Your task to perform on an android device: Empty the shopping cart on newegg.com. Search for "macbook pro 13 inch" on newegg.com, select the first entry, and add it to the cart. Image 0: 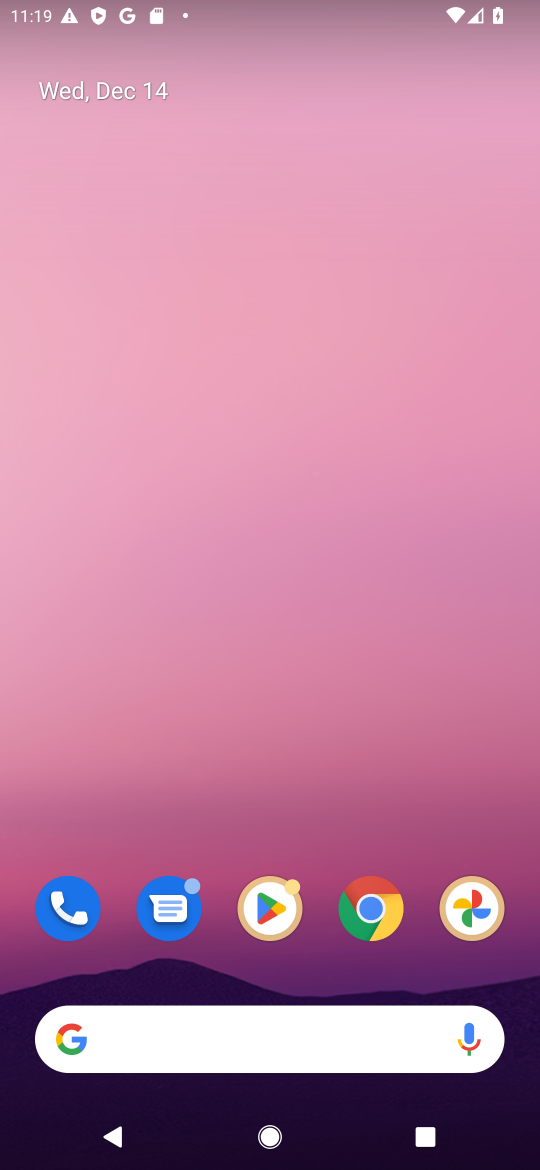
Step 0: click (374, 932)
Your task to perform on an android device: Empty the shopping cart on newegg.com. Search for "macbook pro 13 inch" on newegg.com, select the first entry, and add it to the cart. Image 1: 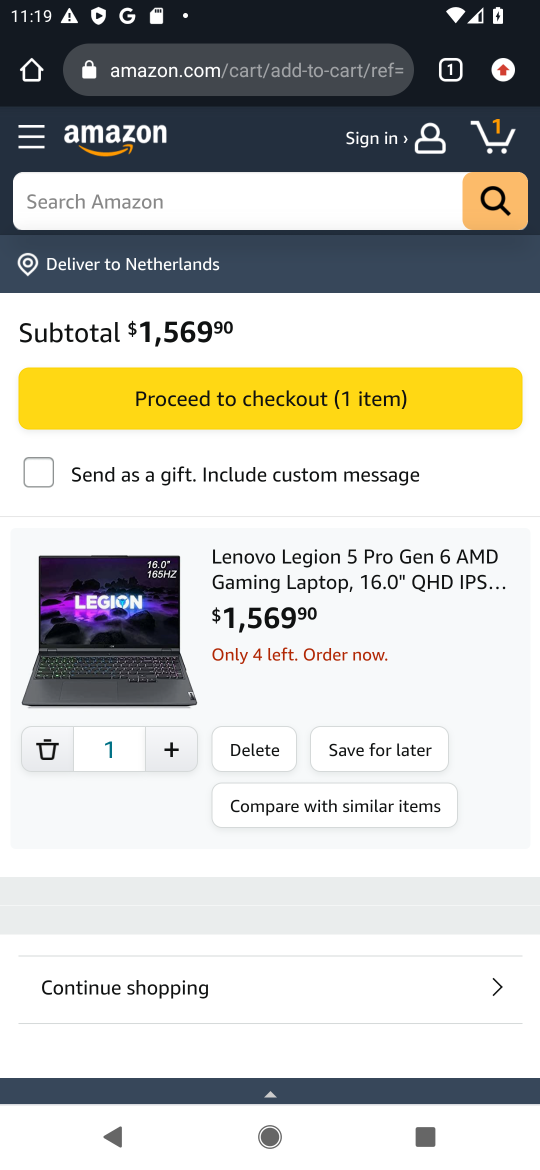
Step 1: click (202, 77)
Your task to perform on an android device: Empty the shopping cart on newegg.com. Search for "macbook pro 13 inch" on newegg.com, select the first entry, and add it to the cart. Image 2: 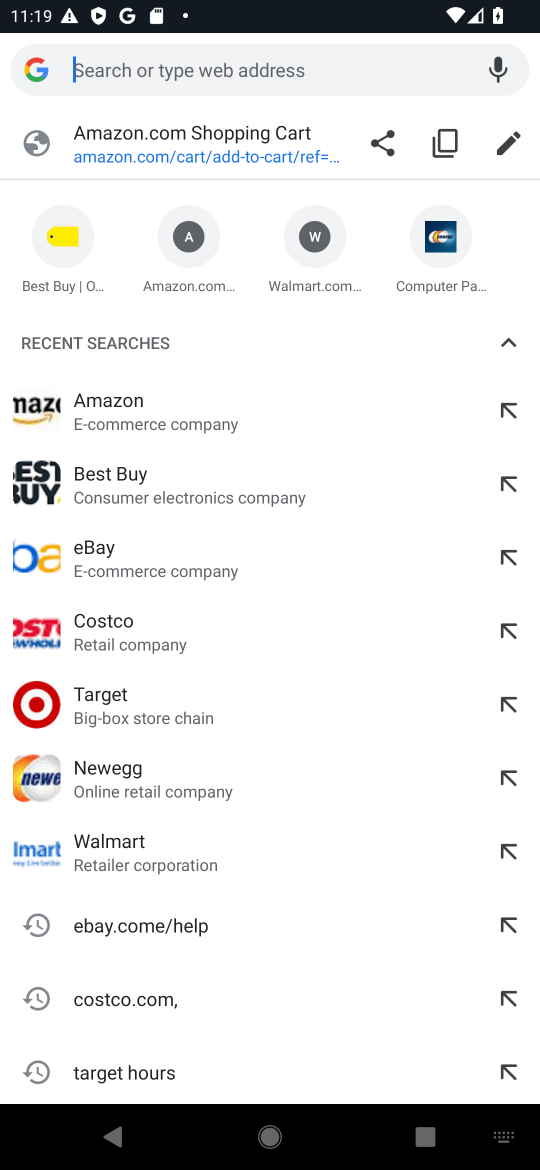
Step 2: click (154, 786)
Your task to perform on an android device: Empty the shopping cart on newegg.com. Search for "macbook pro 13 inch" on newegg.com, select the first entry, and add it to the cart. Image 3: 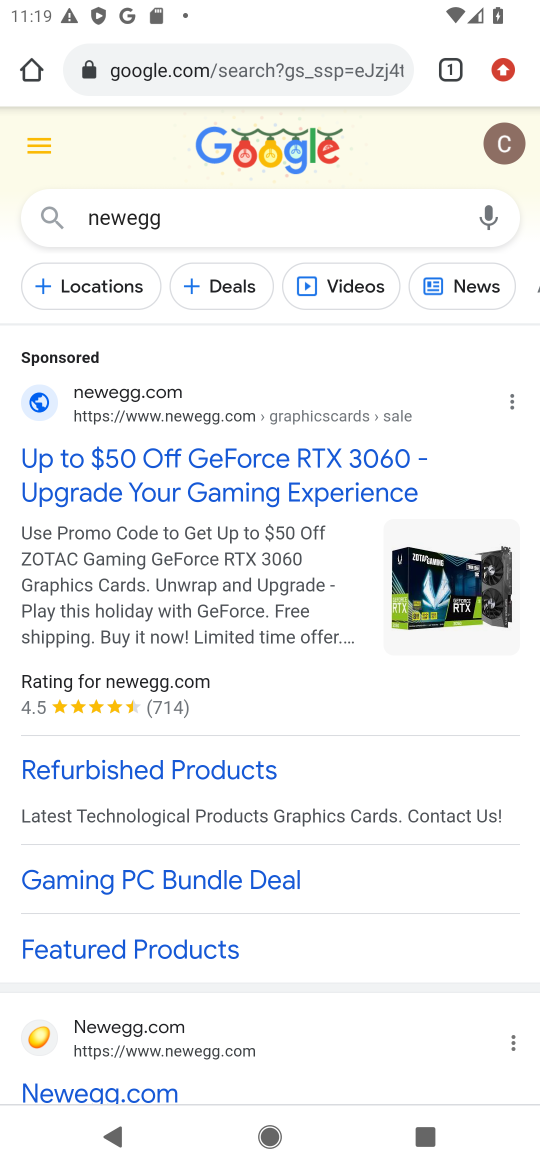
Step 3: click (199, 497)
Your task to perform on an android device: Empty the shopping cart on newegg.com. Search for "macbook pro 13 inch" on newegg.com, select the first entry, and add it to the cart. Image 4: 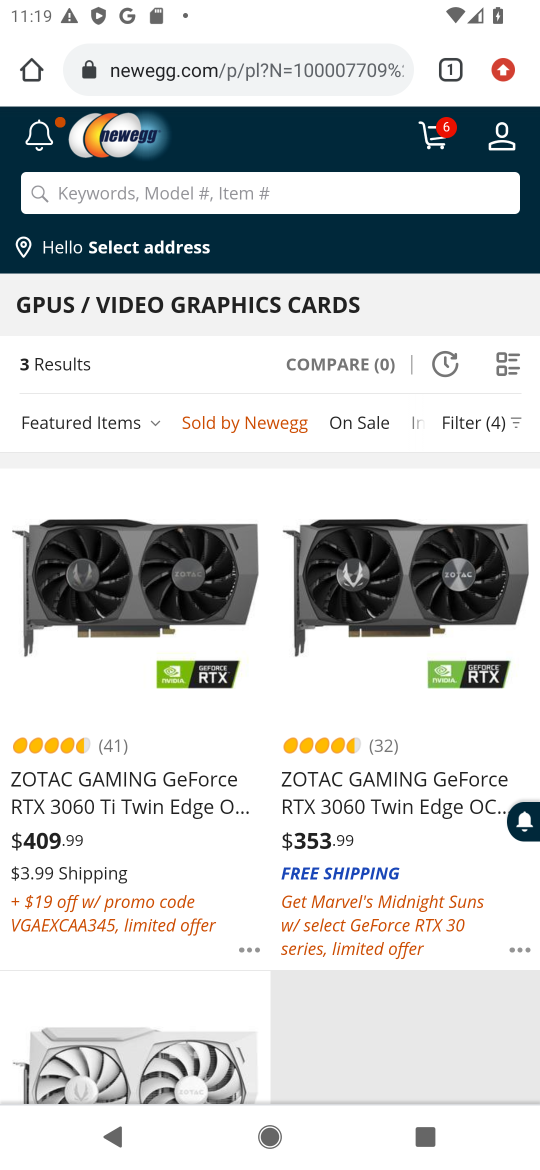
Step 4: click (113, 187)
Your task to perform on an android device: Empty the shopping cart on newegg.com. Search for "macbook pro 13 inch" on newegg.com, select the first entry, and add it to the cart. Image 5: 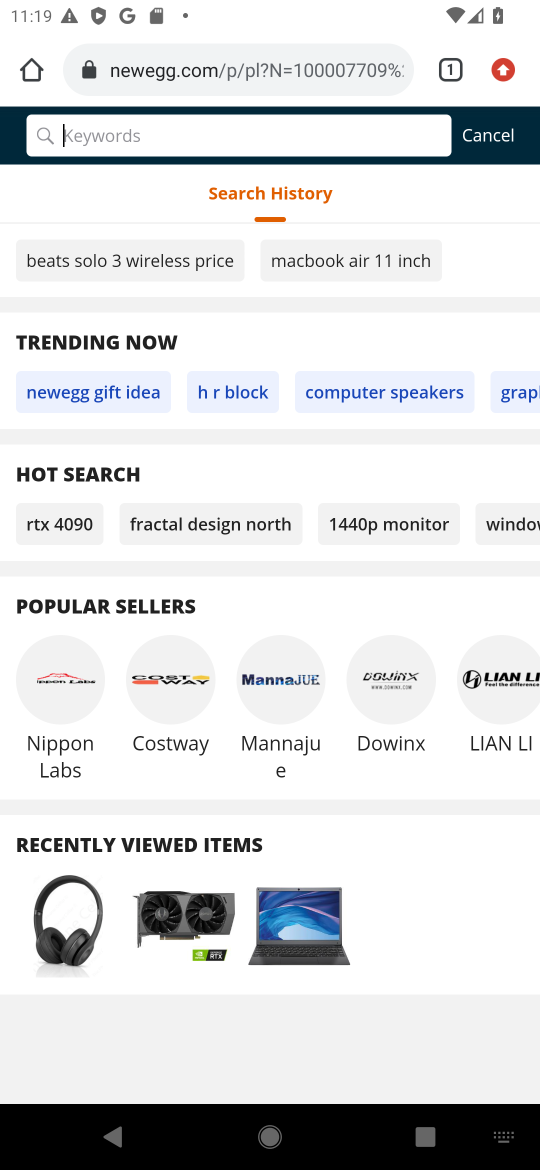
Step 5: type "macbook pro 13"
Your task to perform on an android device: Empty the shopping cart on newegg.com. Search for "macbook pro 13 inch" on newegg.com, select the first entry, and add it to the cart. Image 6: 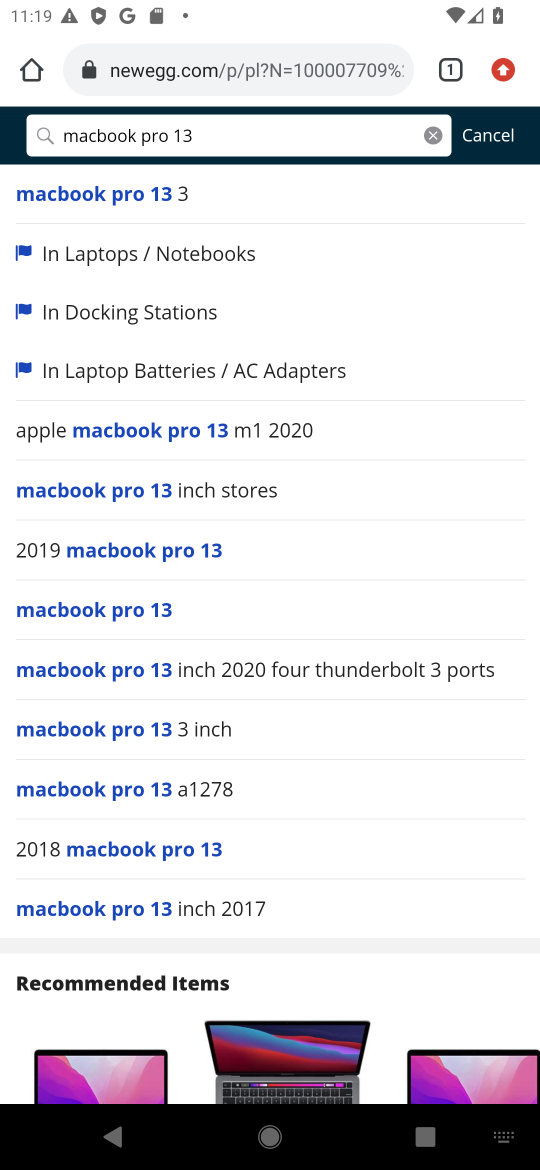
Step 6: click (161, 437)
Your task to perform on an android device: Empty the shopping cart on newegg.com. Search for "macbook pro 13 inch" on newegg.com, select the first entry, and add it to the cart. Image 7: 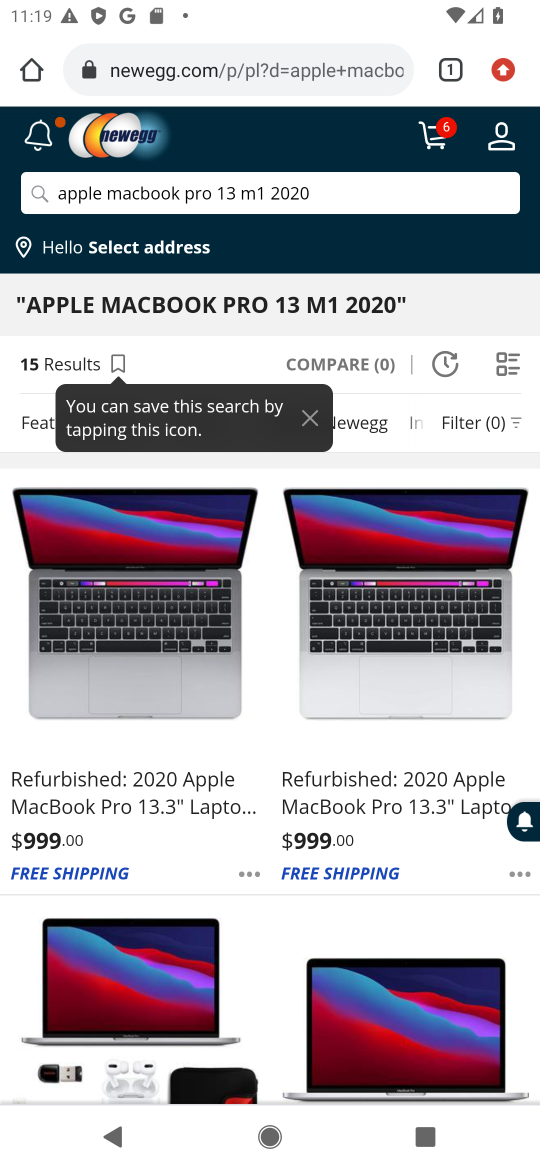
Step 7: click (27, 692)
Your task to perform on an android device: Empty the shopping cart on newegg.com. Search for "macbook pro 13 inch" on newegg.com, select the first entry, and add it to the cart. Image 8: 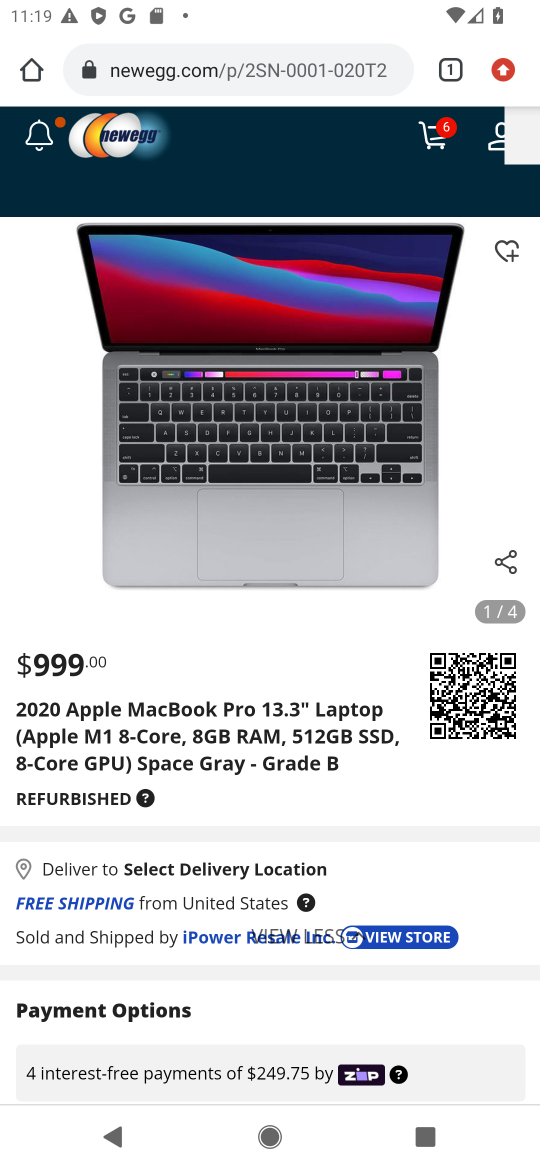
Step 8: click (135, 772)
Your task to perform on an android device: Empty the shopping cart on newegg.com. Search for "macbook pro 13 inch" on newegg.com, select the first entry, and add it to the cart. Image 9: 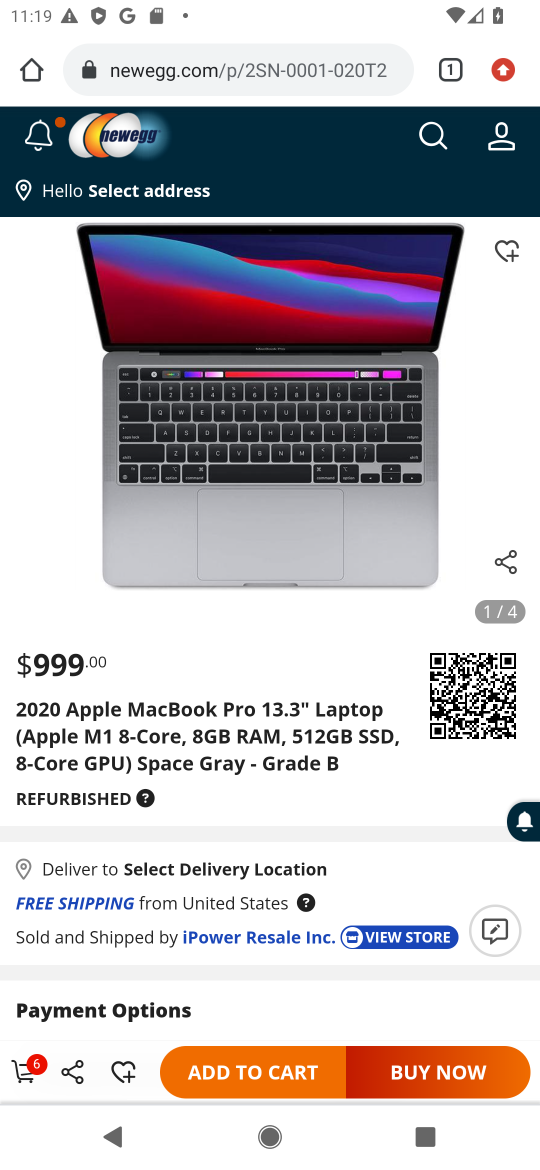
Step 9: click (283, 1071)
Your task to perform on an android device: Empty the shopping cart on newegg.com. Search for "macbook pro 13 inch" on newegg.com, select the first entry, and add it to the cart. Image 10: 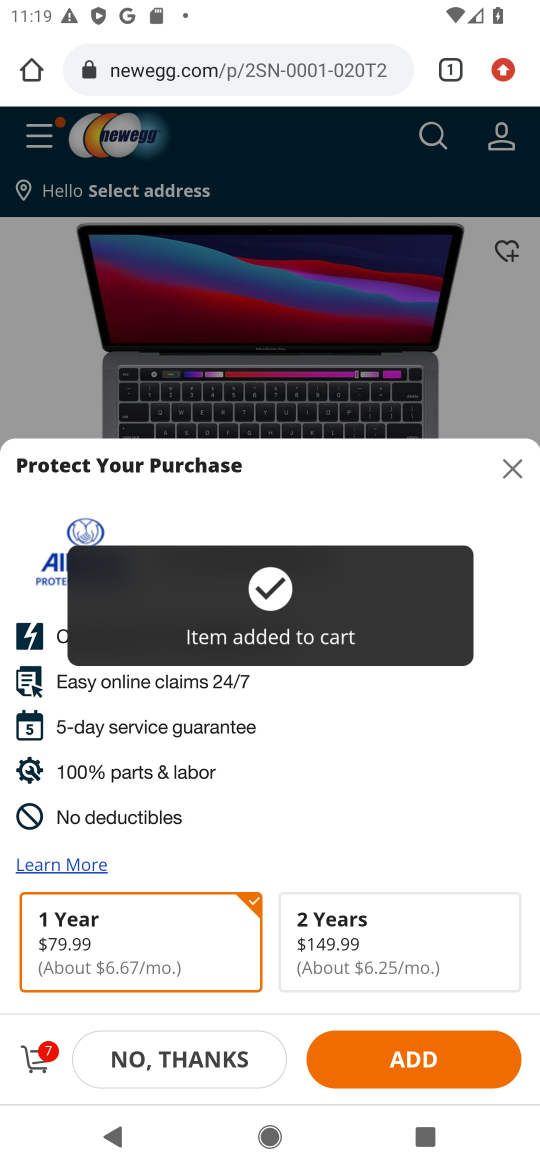
Step 10: task complete